Your task to perform on an android device: turn notification dots off Image 0: 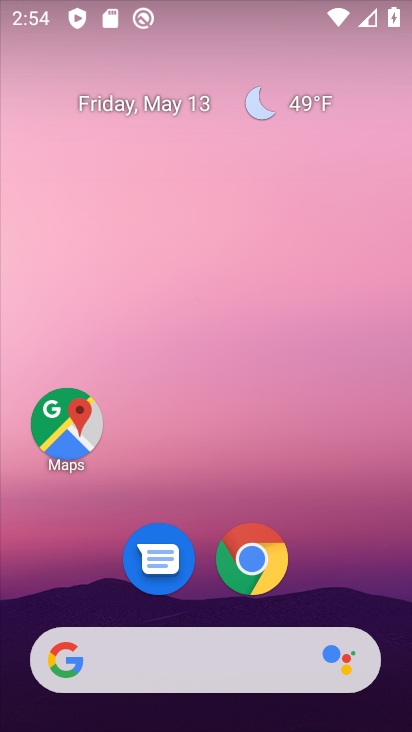
Step 0: drag from (392, 646) to (259, 185)
Your task to perform on an android device: turn notification dots off Image 1: 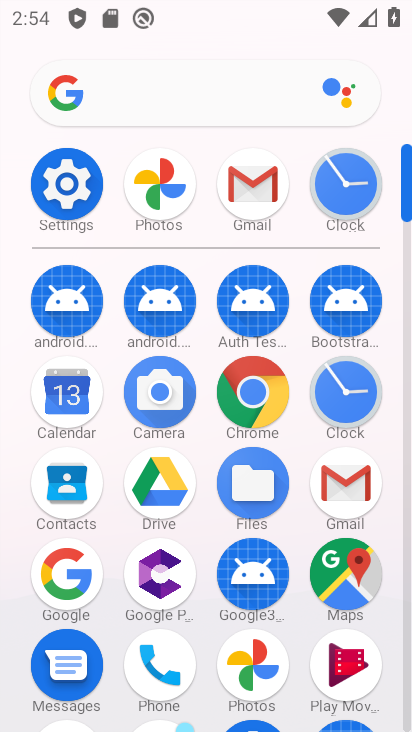
Step 1: click (411, 698)
Your task to perform on an android device: turn notification dots off Image 2: 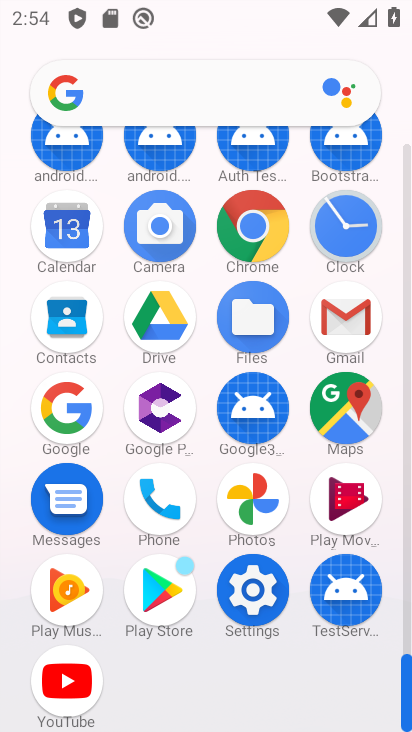
Step 2: click (253, 587)
Your task to perform on an android device: turn notification dots off Image 3: 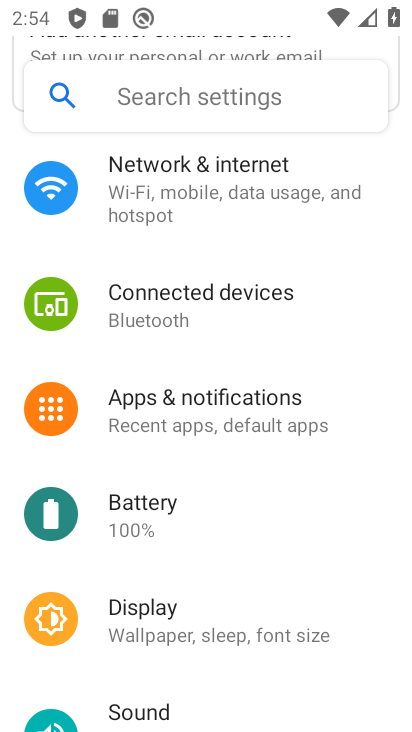
Step 3: click (228, 410)
Your task to perform on an android device: turn notification dots off Image 4: 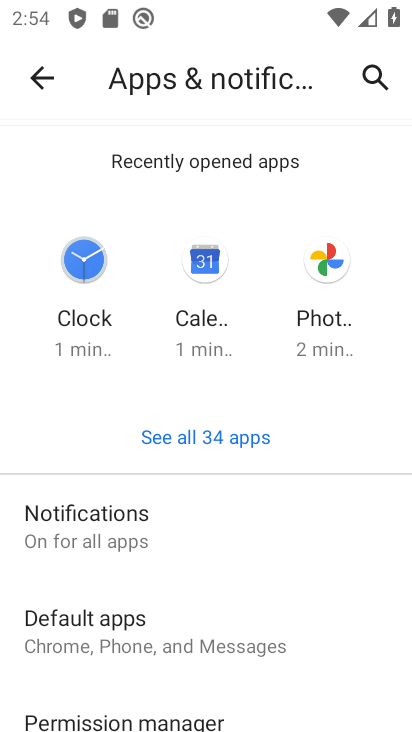
Step 4: click (122, 510)
Your task to perform on an android device: turn notification dots off Image 5: 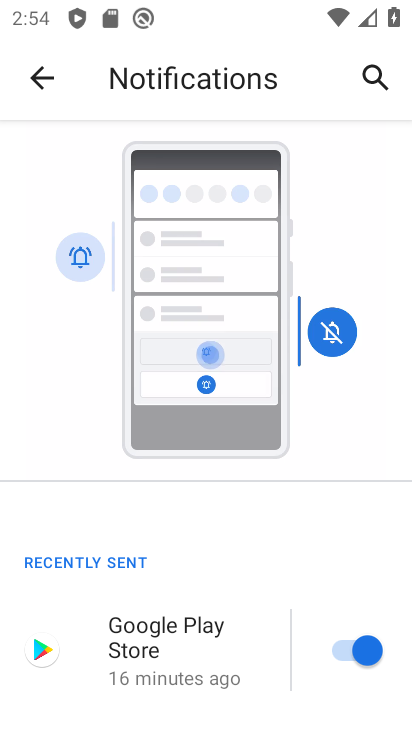
Step 5: drag from (289, 684) to (245, 284)
Your task to perform on an android device: turn notification dots off Image 6: 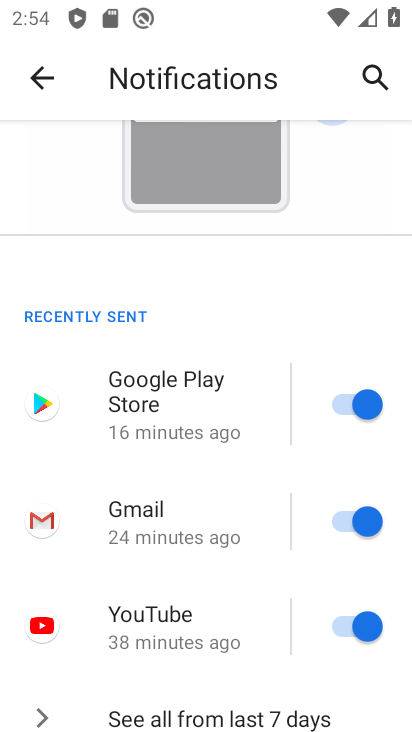
Step 6: drag from (272, 642) to (236, 357)
Your task to perform on an android device: turn notification dots off Image 7: 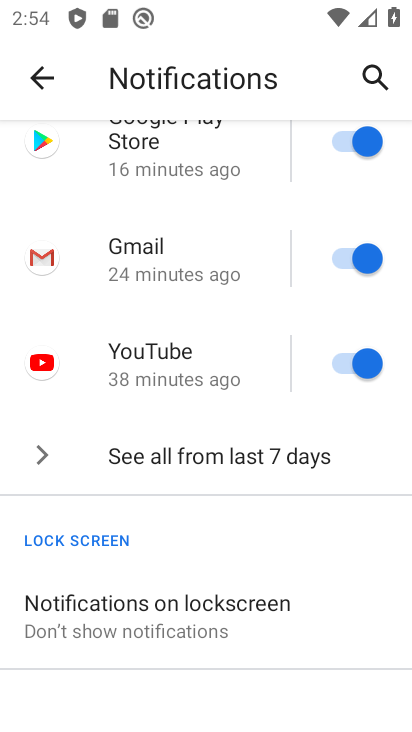
Step 7: drag from (300, 589) to (298, 252)
Your task to perform on an android device: turn notification dots off Image 8: 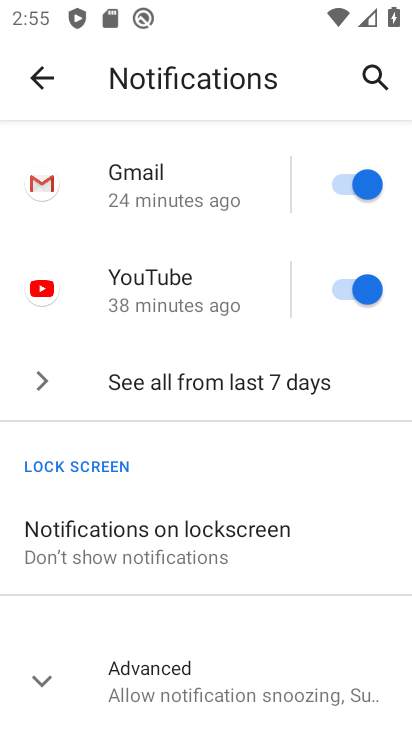
Step 8: click (50, 680)
Your task to perform on an android device: turn notification dots off Image 9: 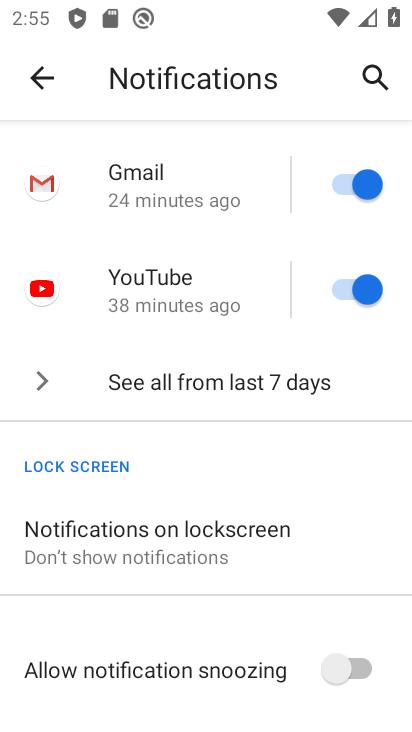
Step 9: drag from (177, 672) to (315, 202)
Your task to perform on an android device: turn notification dots off Image 10: 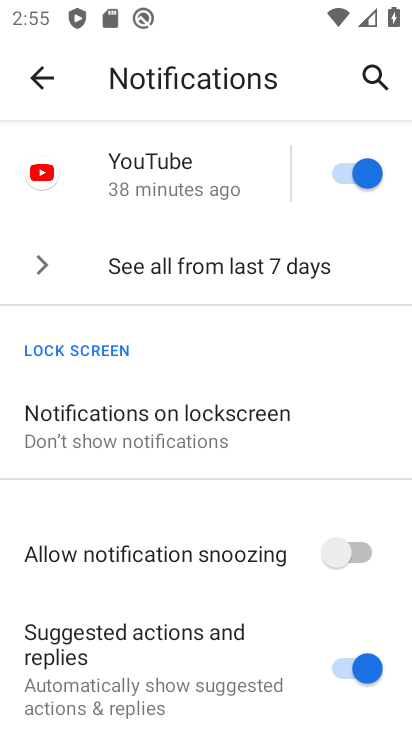
Step 10: drag from (255, 611) to (287, 275)
Your task to perform on an android device: turn notification dots off Image 11: 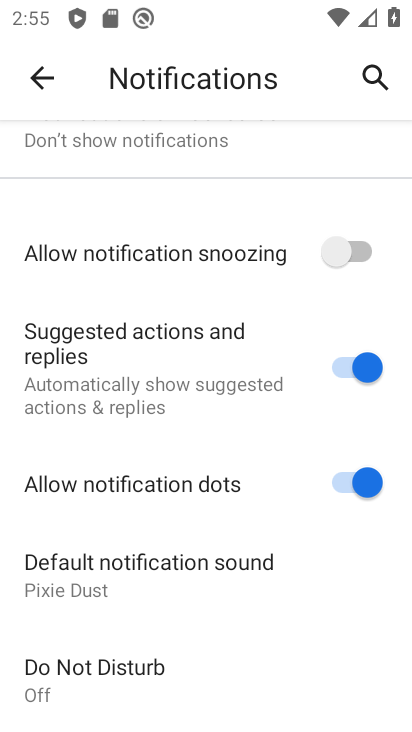
Step 11: click (347, 486)
Your task to perform on an android device: turn notification dots off Image 12: 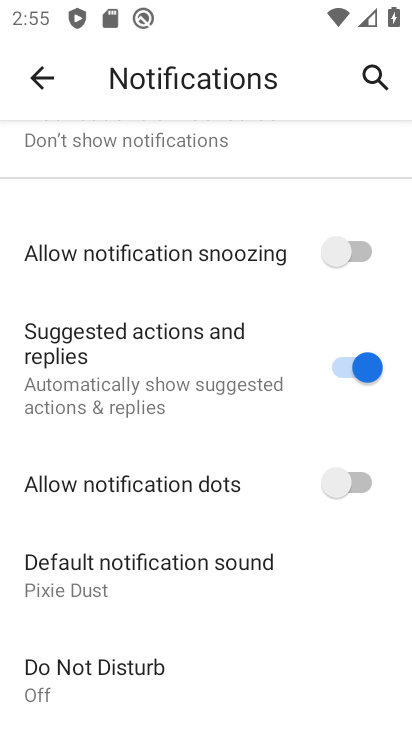
Step 12: task complete